Your task to perform on an android device: Open settings Image 0: 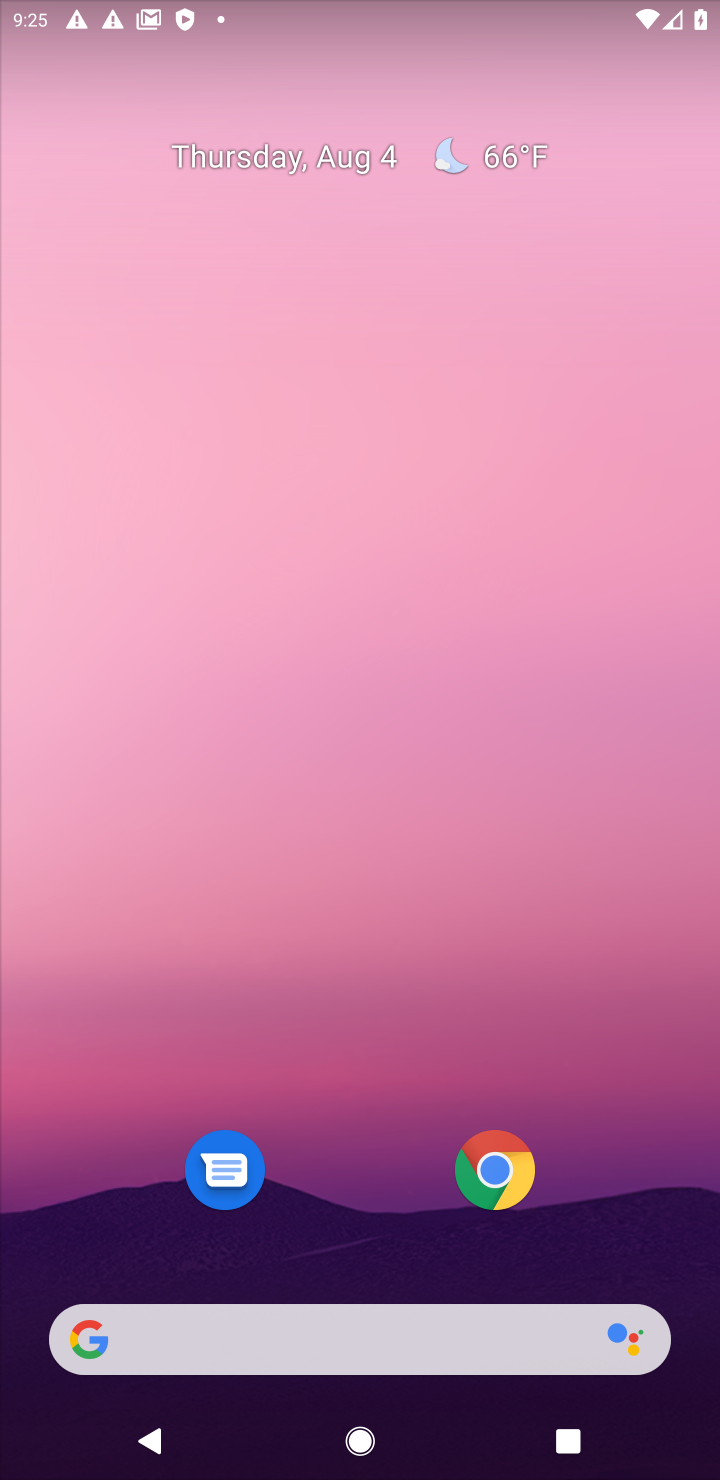
Step 0: drag from (394, 1113) to (450, 91)
Your task to perform on an android device: Open settings Image 1: 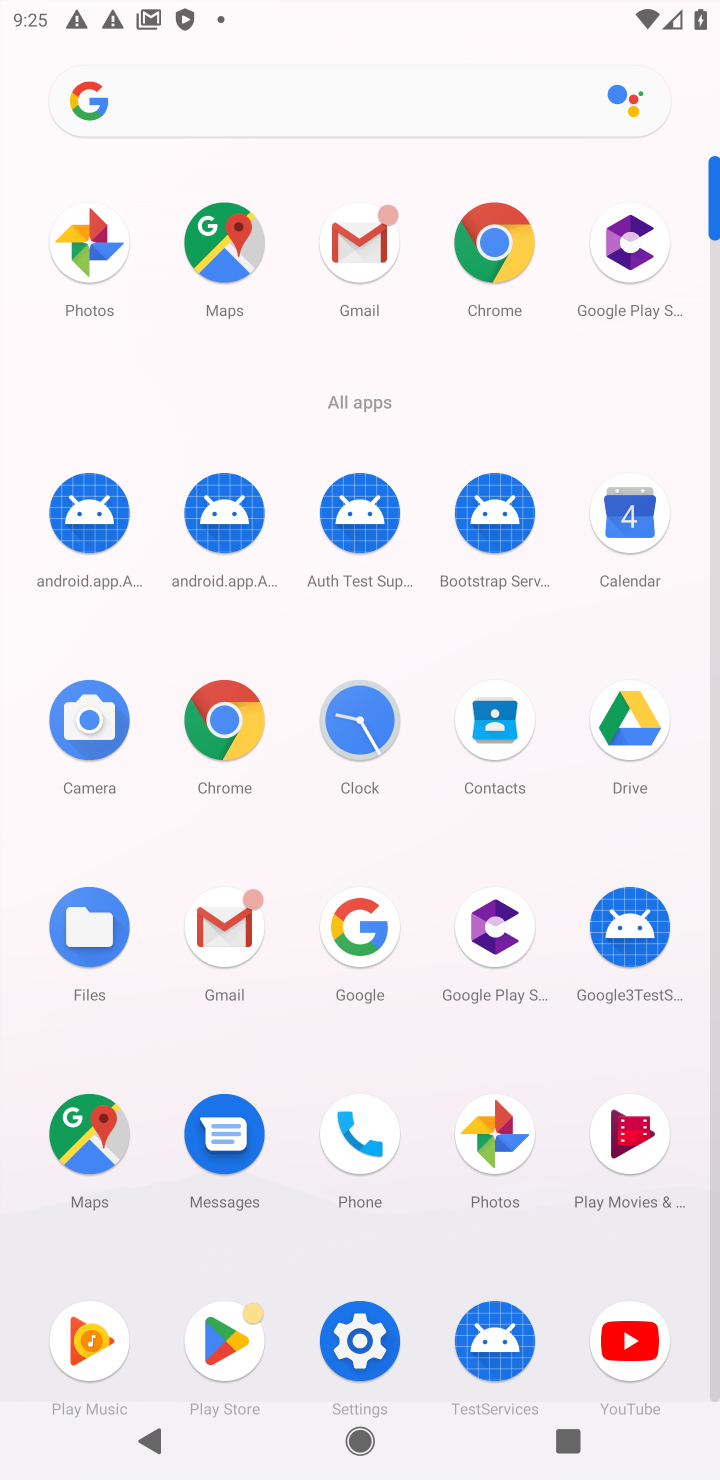
Step 1: click (374, 1323)
Your task to perform on an android device: Open settings Image 2: 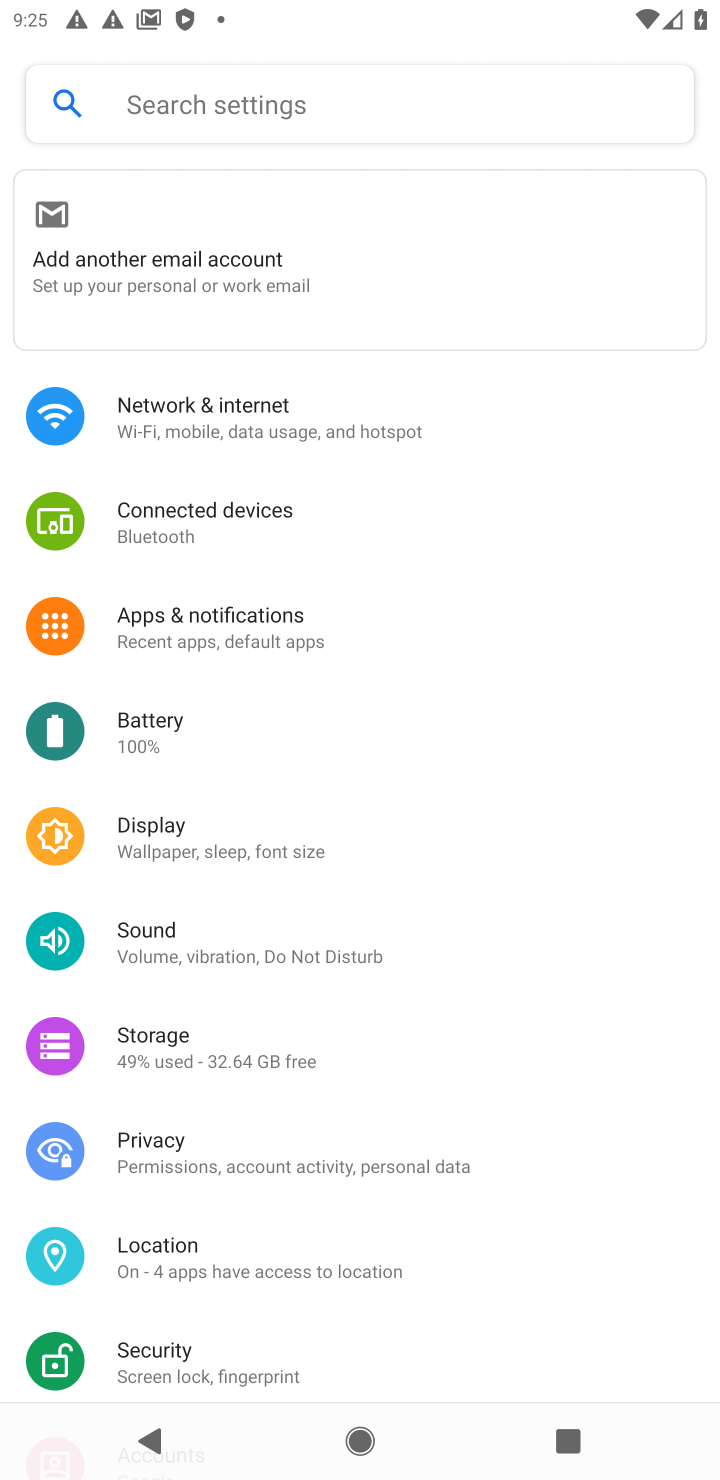
Step 2: task complete